Your task to perform on an android device: Go to Amazon Image 0: 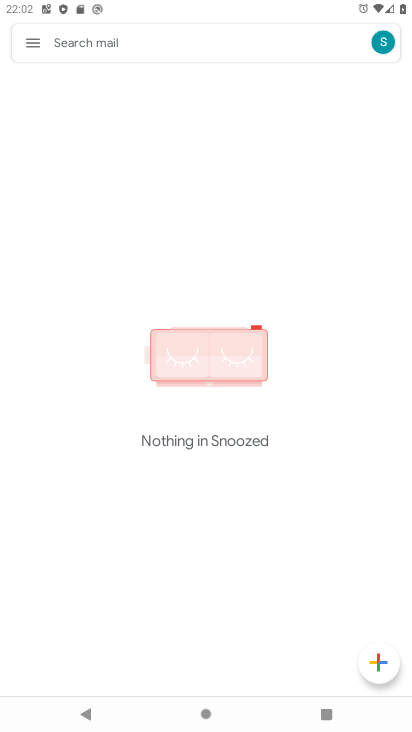
Step 0: press home button
Your task to perform on an android device: Go to Amazon Image 1: 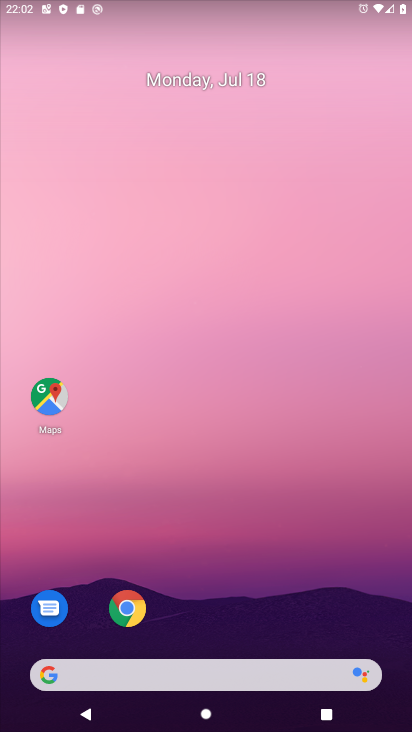
Step 1: click (79, 669)
Your task to perform on an android device: Go to Amazon Image 2: 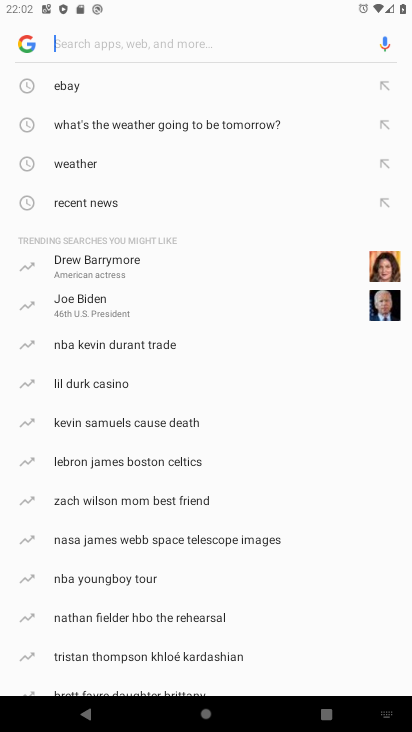
Step 2: click (42, 729)
Your task to perform on an android device: Go to Amazon Image 3: 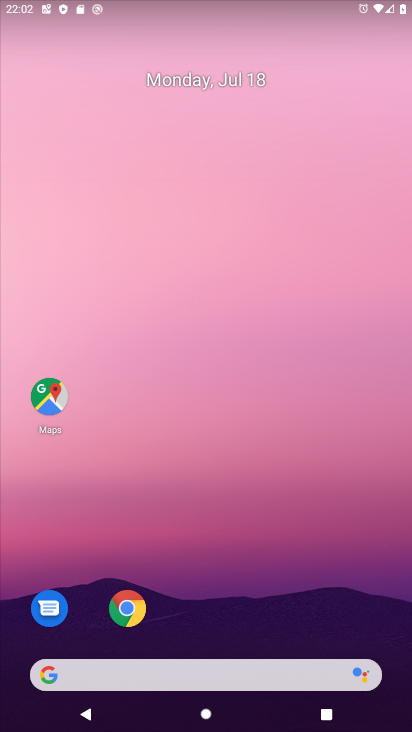
Step 3: click (113, 674)
Your task to perform on an android device: Go to Amazon Image 4: 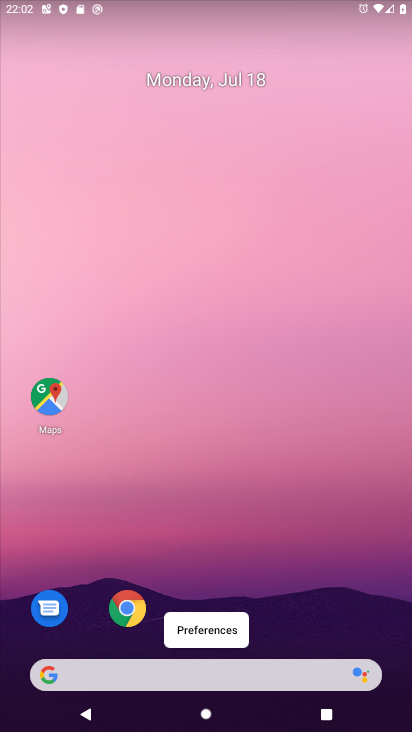
Step 4: click (112, 674)
Your task to perform on an android device: Go to Amazon Image 5: 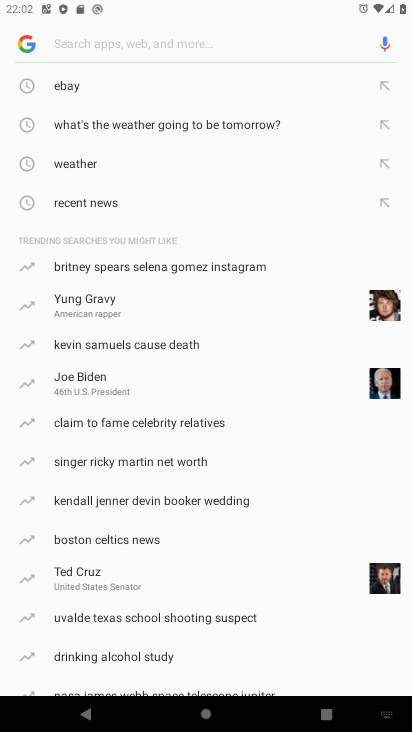
Step 5: type "Amazon"
Your task to perform on an android device: Go to Amazon Image 6: 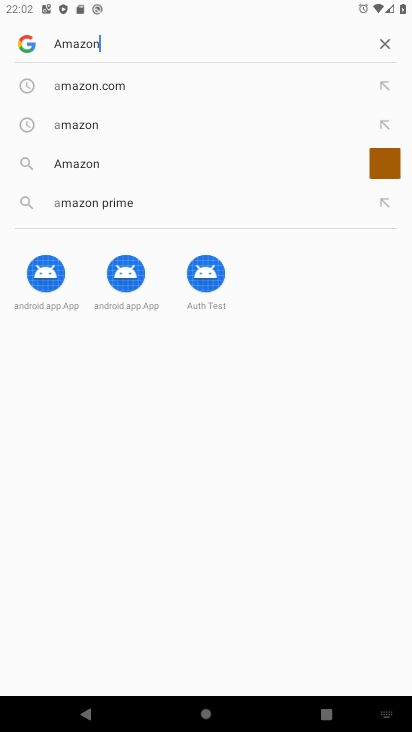
Step 6: type ""
Your task to perform on an android device: Go to Amazon Image 7: 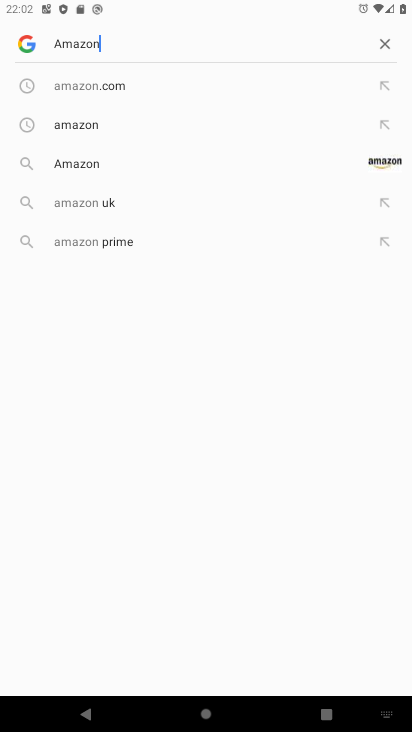
Step 7: click (79, 92)
Your task to perform on an android device: Go to Amazon Image 8: 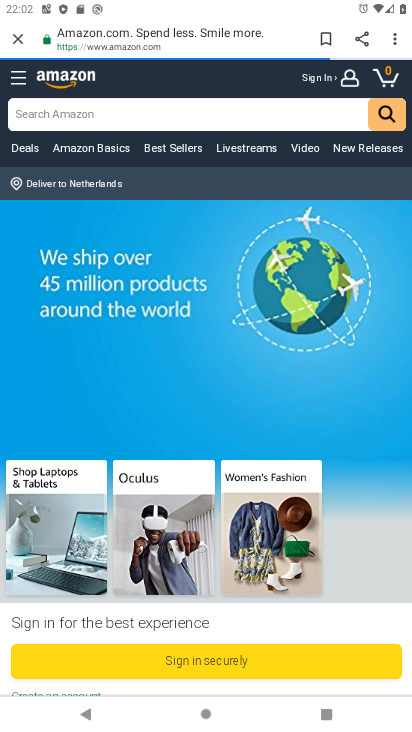
Step 8: task complete